Your task to perform on an android device: turn on improve location accuracy Image 0: 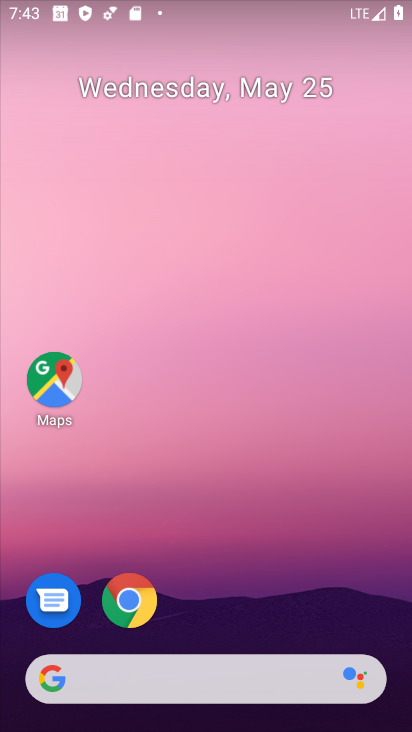
Step 0: drag from (278, 593) to (210, 189)
Your task to perform on an android device: turn on improve location accuracy Image 1: 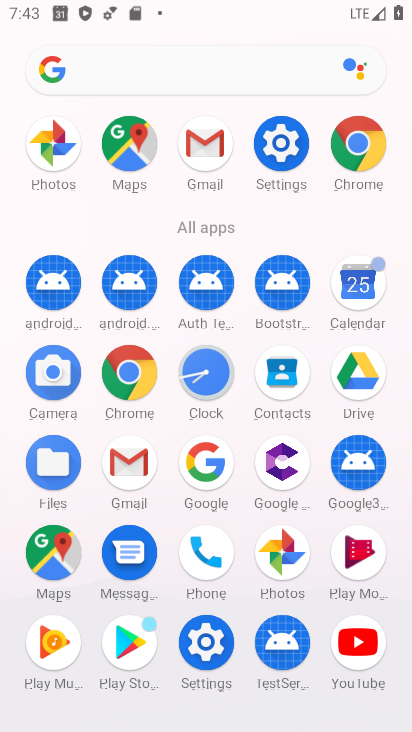
Step 1: click (274, 133)
Your task to perform on an android device: turn on improve location accuracy Image 2: 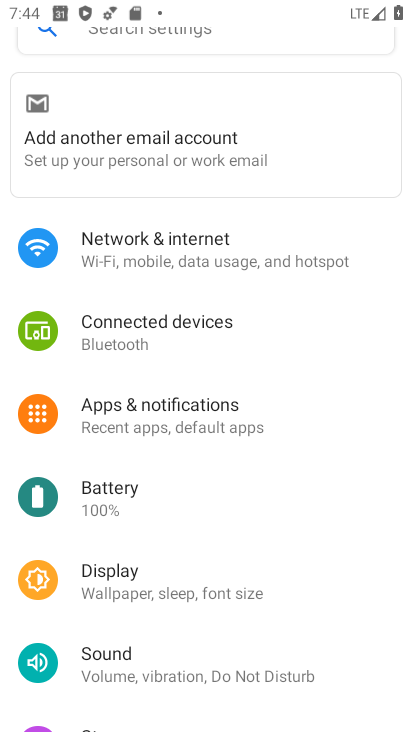
Step 2: drag from (217, 600) to (229, 260)
Your task to perform on an android device: turn on improve location accuracy Image 3: 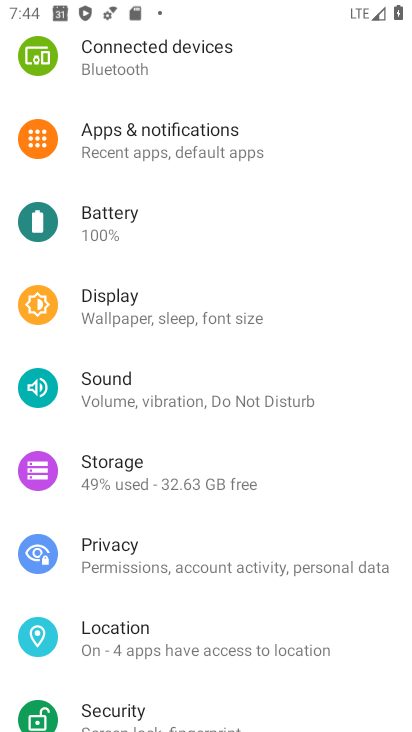
Step 3: click (174, 659)
Your task to perform on an android device: turn on improve location accuracy Image 4: 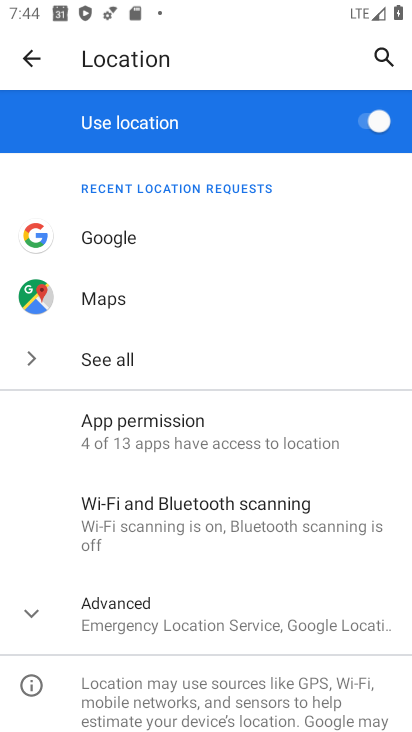
Step 4: click (160, 604)
Your task to perform on an android device: turn on improve location accuracy Image 5: 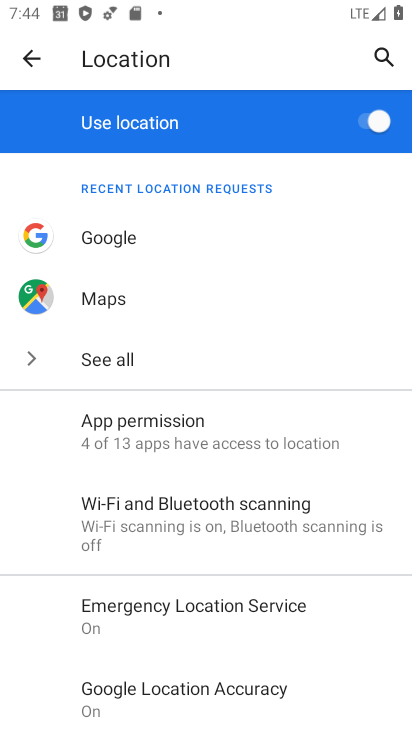
Step 5: click (158, 688)
Your task to perform on an android device: turn on improve location accuracy Image 6: 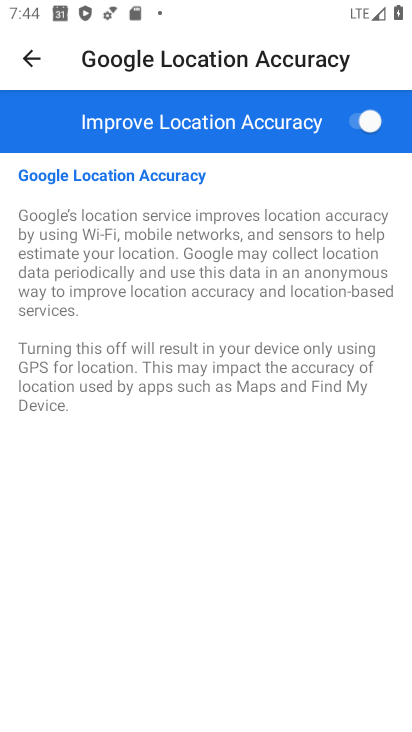
Step 6: click (382, 133)
Your task to perform on an android device: turn on improve location accuracy Image 7: 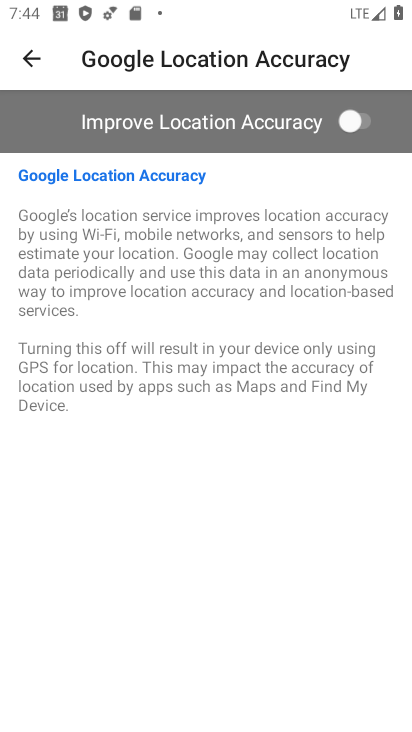
Step 7: task complete